Your task to perform on an android device: Go to notification settings Image 0: 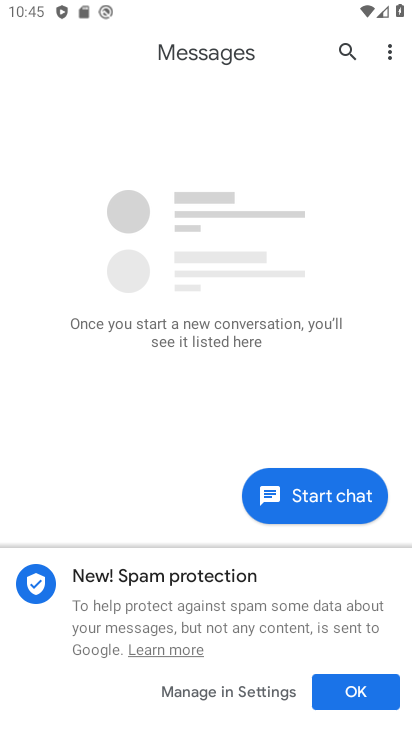
Step 0: press home button
Your task to perform on an android device: Go to notification settings Image 1: 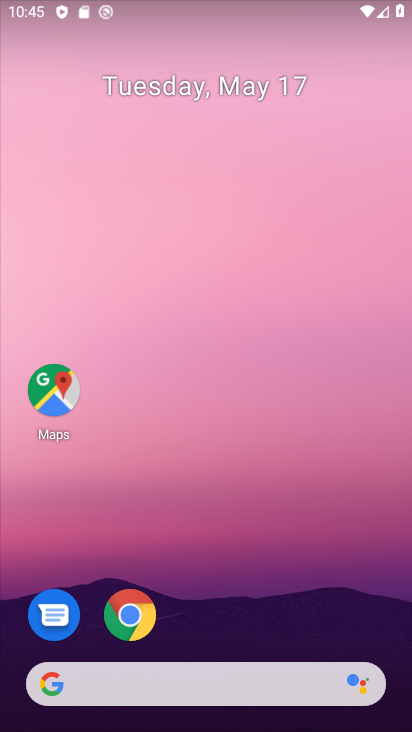
Step 1: drag from (197, 635) to (188, 318)
Your task to perform on an android device: Go to notification settings Image 2: 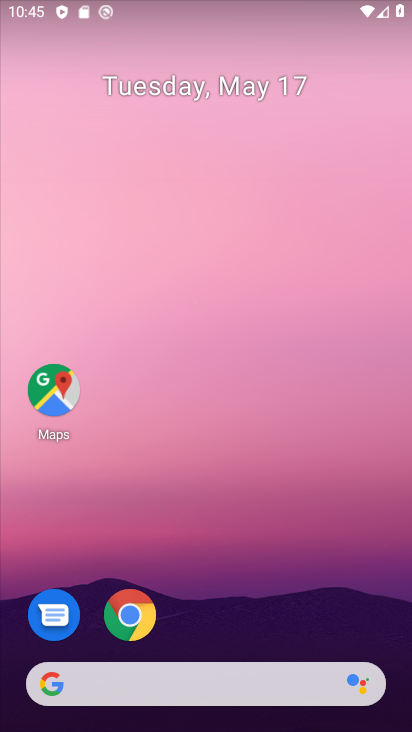
Step 2: drag from (163, 644) to (233, 208)
Your task to perform on an android device: Go to notification settings Image 3: 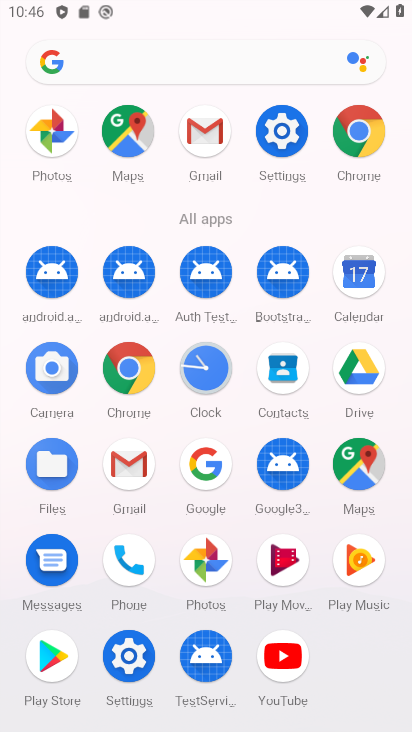
Step 3: click (283, 128)
Your task to perform on an android device: Go to notification settings Image 4: 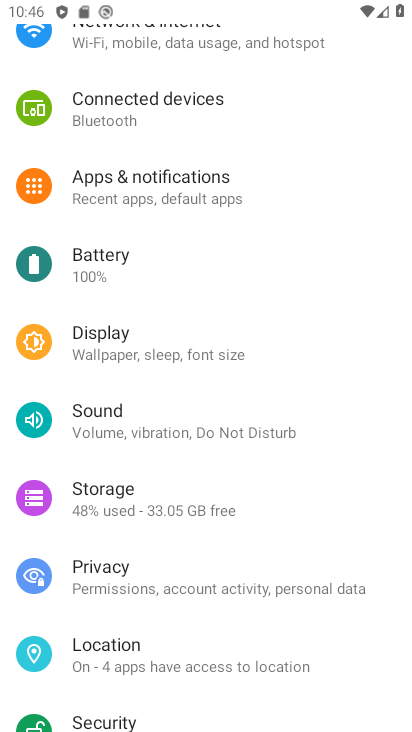
Step 4: drag from (176, 597) to (183, 428)
Your task to perform on an android device: Go to notification settings Image 5: 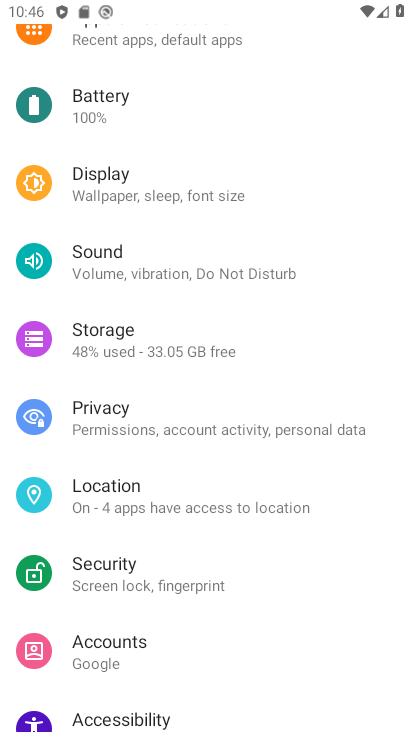
Step 5: click (149, 42)
Your task to perform on an android device: Go to notification settings Image 6: 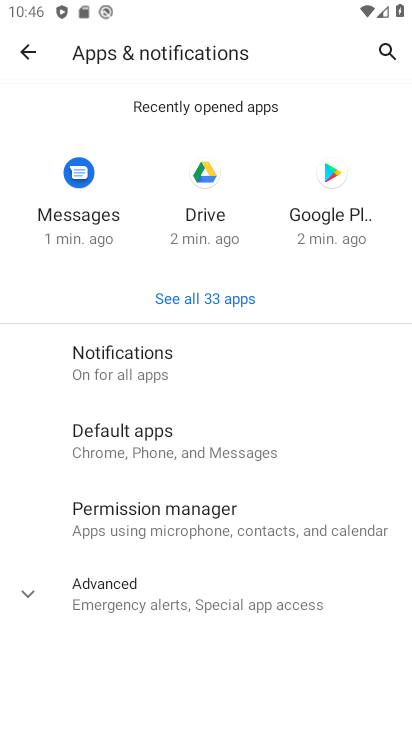
Step 6: click (144, 395)
Your task to perform on an android device: Go to notification settings Image 7: 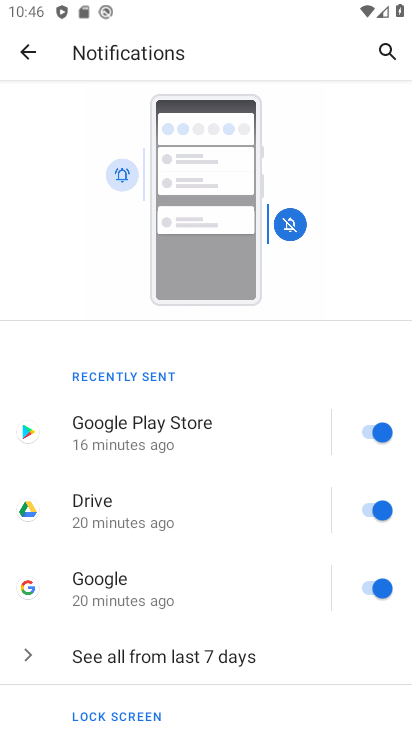
Step 7: task complete